Your task to perform on an android device: Open Google Chrome and open the bookmarks view Image 0: 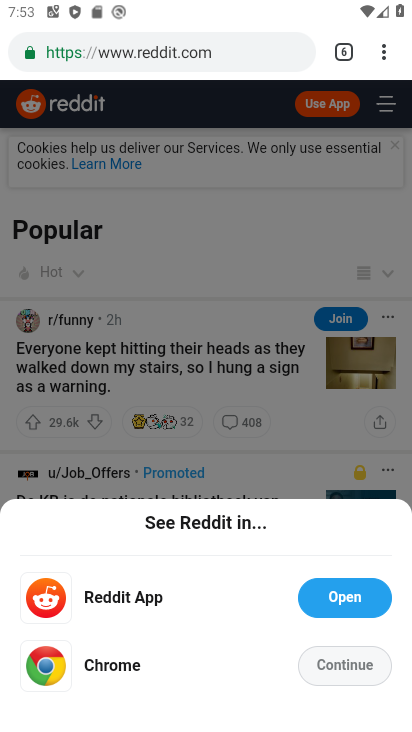
Step 0: press home button
Your task to perform on an android device: Open Google Chrome and open the bookmarks view Image 1: 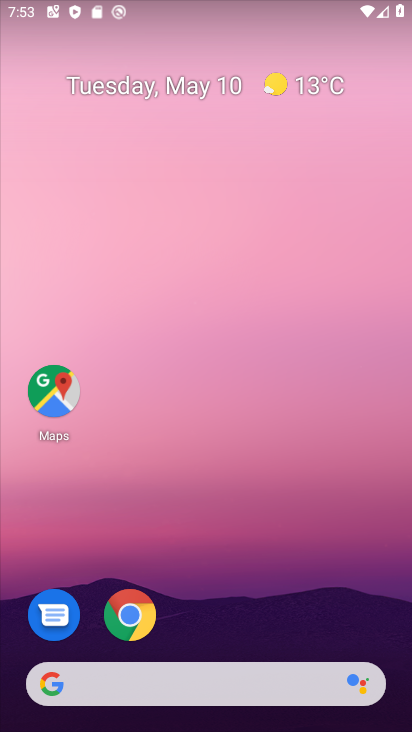
Step 1: click (127, 621)
Your task to perform on an android device: Open Google Chrome and open the bookmarks view Image 2: 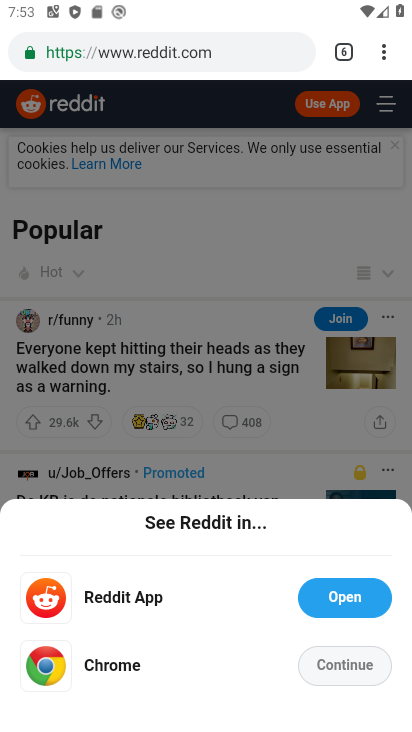
Step 2: click (382, 48)
Your task to perform on an android device: Open Google Chrome and open the bookmarks view Image 3: 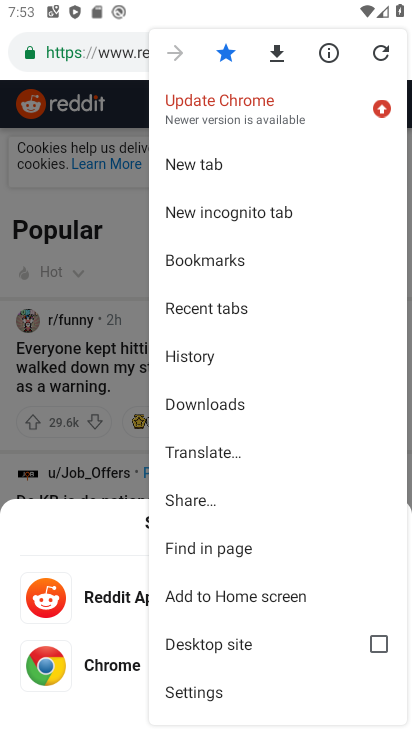
Step 3: click (216, 258)
Your task to perform on an android device: Open Google Chrome and open the bookmarks view Image 4: 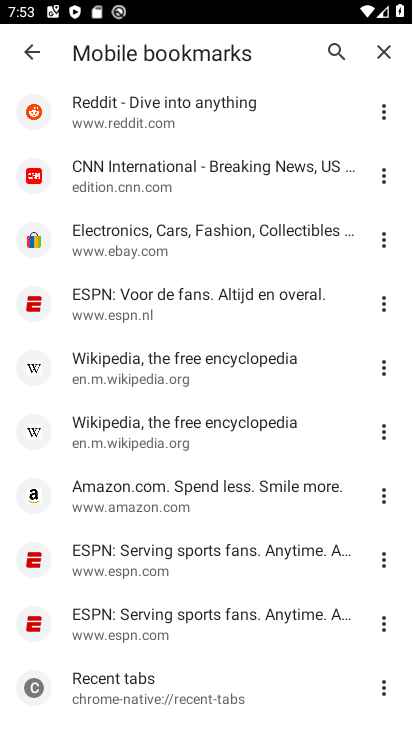
Step 4: click (380, 109)
Your task to perform on an android device: Open Google Chrome and open the bookmarks view Image 5: 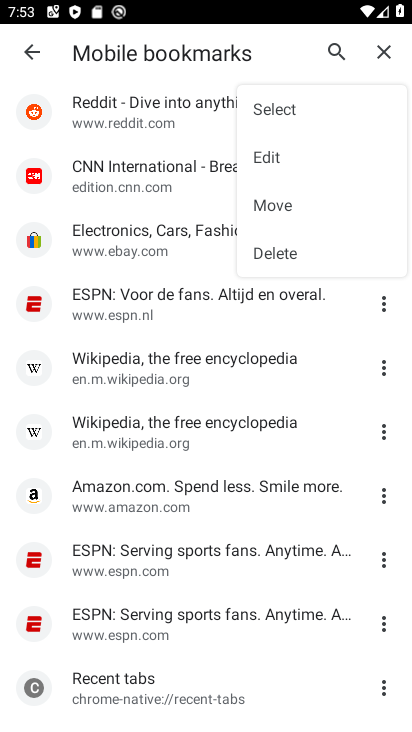
Step 5: click (278, 156)
Your task to perform on an android device: Open Google Chrome and open the bookmarks view Image 6: 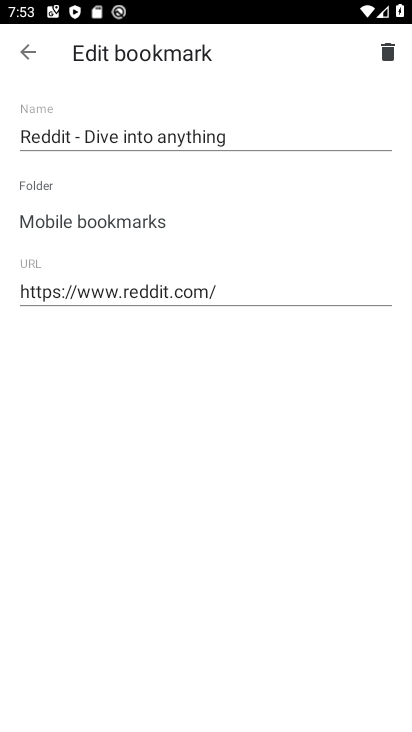
Step 6: task complete